Your task to perform on an android device: change keyboard looks Image 0: 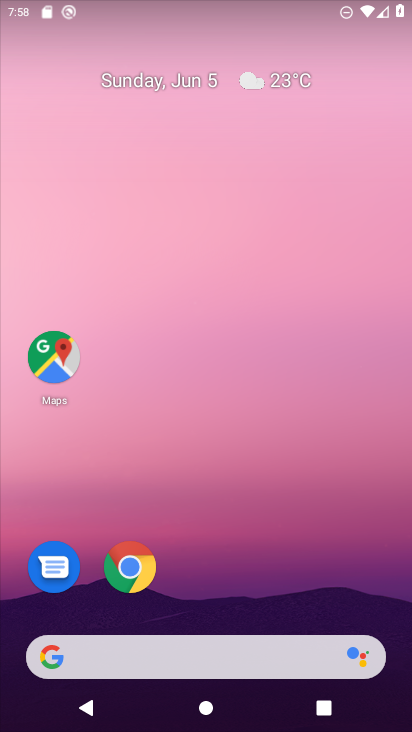
Step 0: drag from (410, 639) to (269, 8)
Your task to perform on an android device: change keyboard looks Image 1: 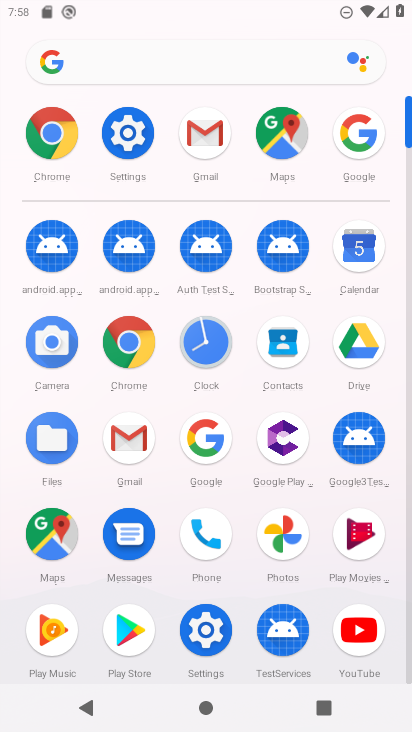
Step 1: click (123, 153)
Your task to perform on an android device: change keyboard looks Image 2: 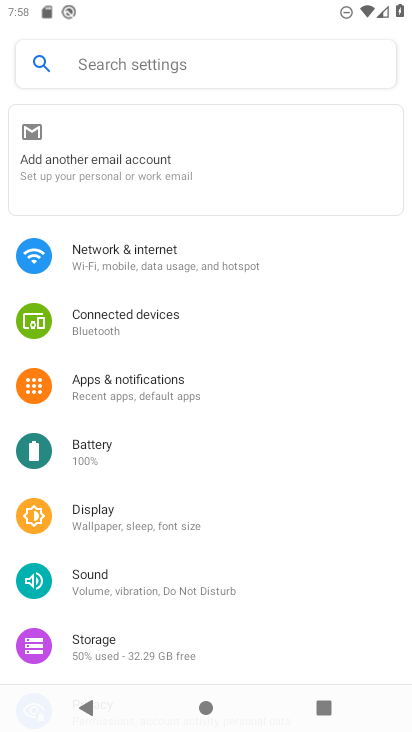
Step 2: drag from (202, 608) to (201, 7)
Your task to perform on an android device: change keyboard looks Image 3: 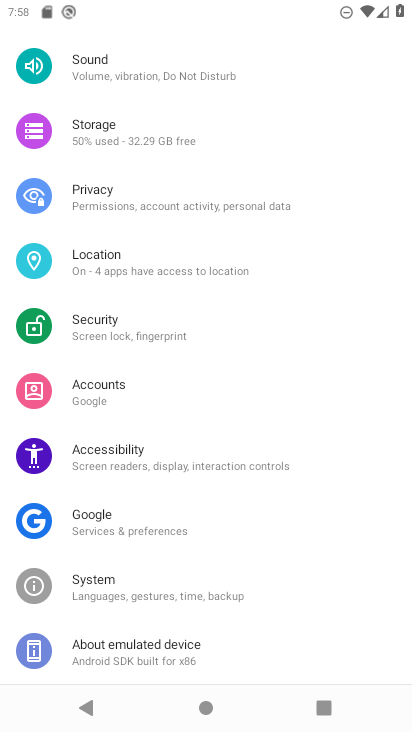
Step 3: drag from (199, 633) to (225, 585)
Your task to perform on an android device: change keyboard looks Image 4: 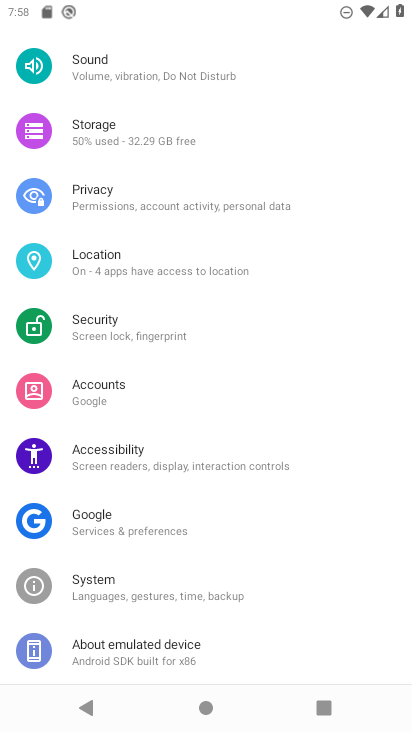
Step 4: drag from (294, 203) to (272, 123)
Your task to perform on an android device: change keyboard looks Image 5: 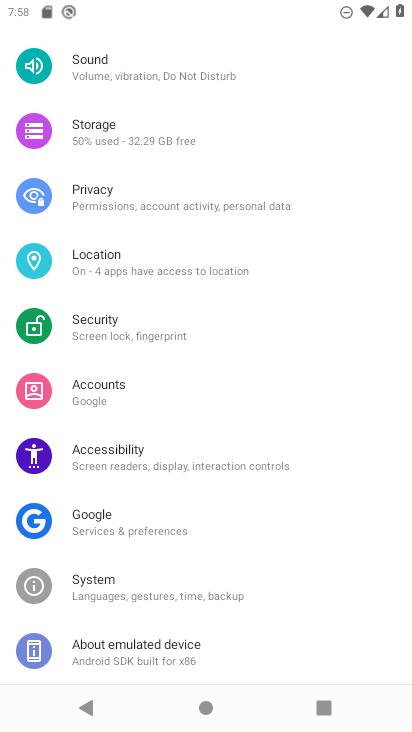
Step 5: click (245, 645)
Your task to perform on an android device: change keyboard looks Image 6: 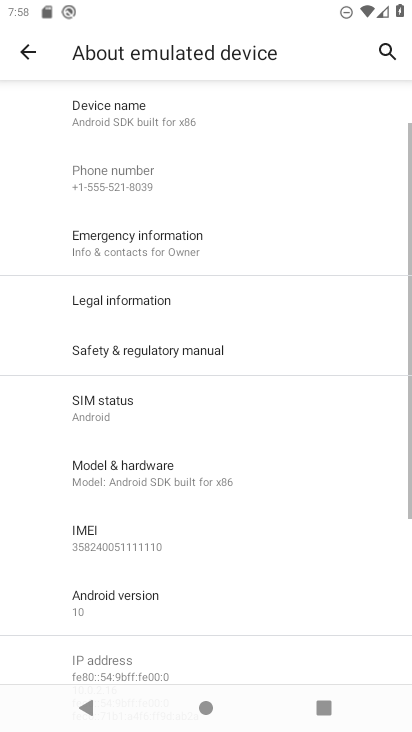
Step 6: press back button
Your task to perform on an android device: change keyboard looks Image 7: 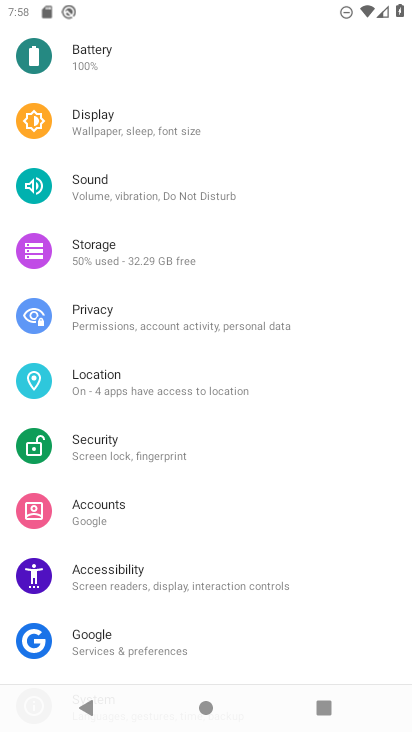
Step 7: drag from (127, 633) to (117, 194)
Your task to perform on an android device: change keyboard looks Image 8: 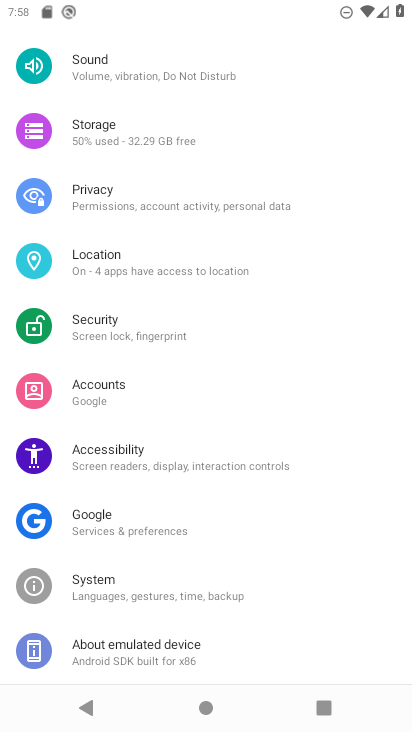
Step 8: click (132, 593)
Your task to perform on an android device: change keyboard looks Image 9: 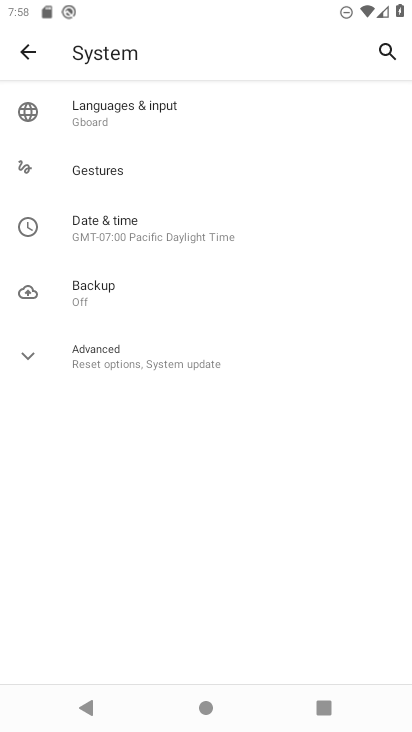
Step 9: click (167, 101)
Your task to perform on an android device: change keyboard looks Image 10: 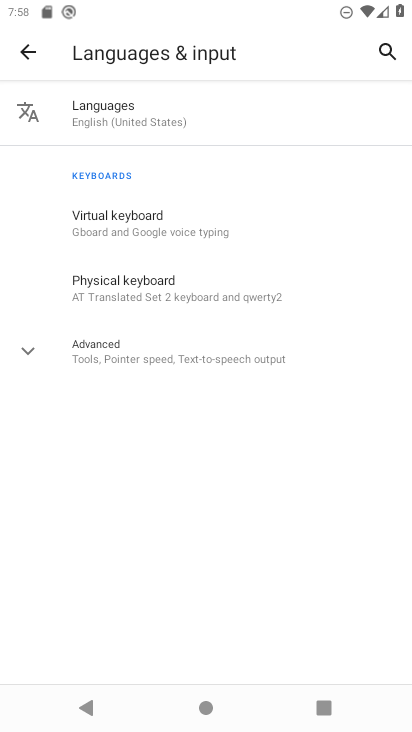
Step 10: click (127, 219)
Your task to perform on an android device: change keyboard looks Image 11: 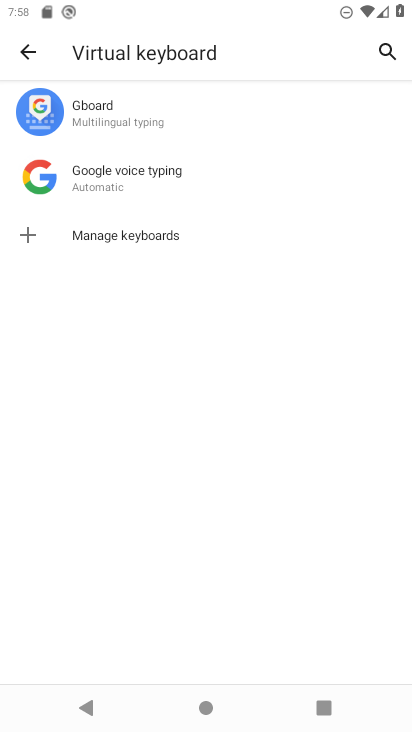
Step 11: click (113, 117)
Your task to perform on an android device: change keyboard looks Image 12: 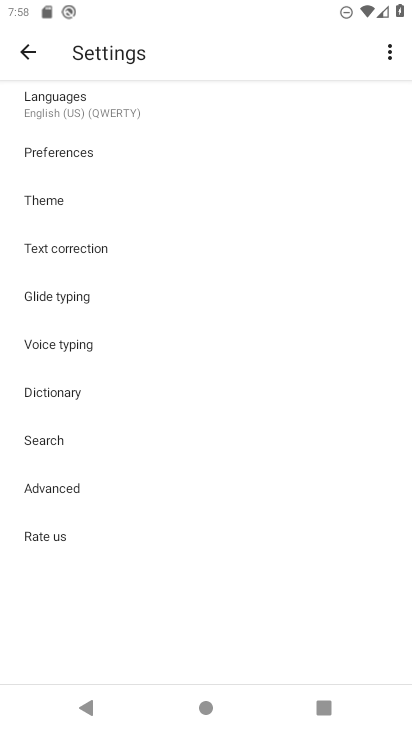
Step 12: click (58, 198)
Your task to perform on an android device: change keyboard looks Image 13: 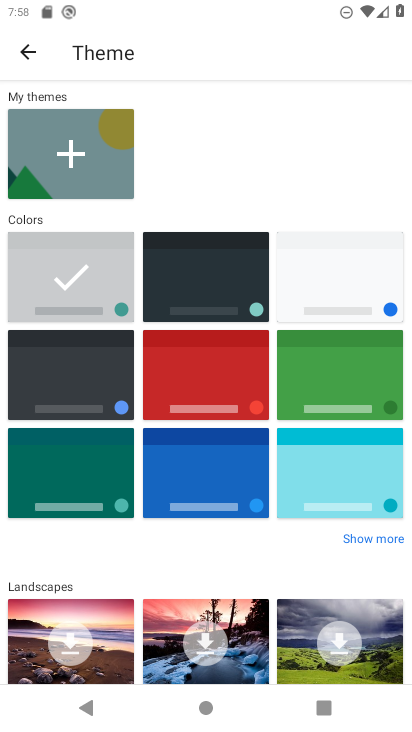
Step 13: click (178, 275)
Your task to perform on an android device: change keyboard looks Image 14: 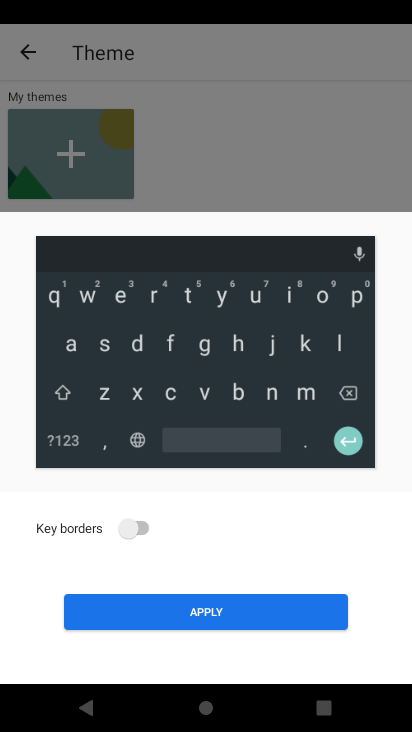
Step 14: click (229, 609)
Your task to perform on an android device: change keyboard looks Image 15: 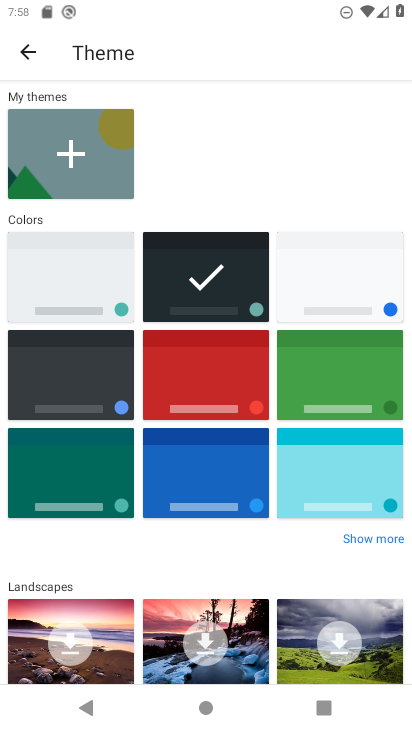
Step 15: task complete